Your task to perform on an android device: refresh tabs in the chrome app Image 0: 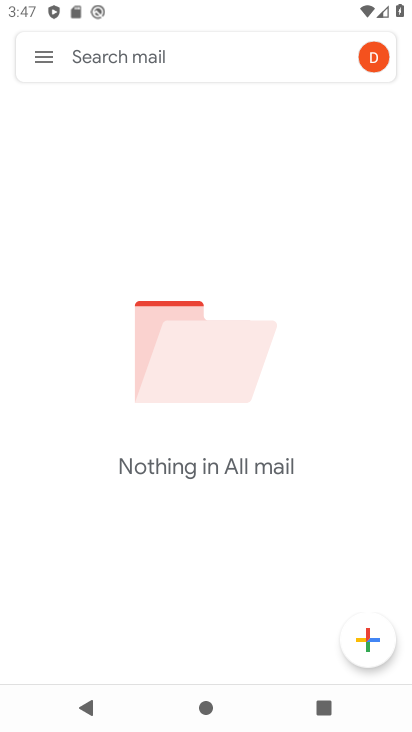
Step 0: press home button
Your task to perform on an android device: refresh tabs in the chrome app Image 1: 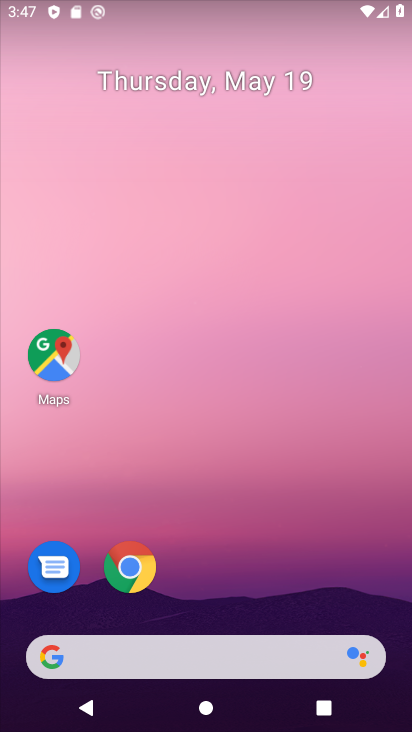
Step 1: drag from (208, 247) to (197, 76)
Your task to perform on an android device: refresh tabs in the chrome app Image 2: 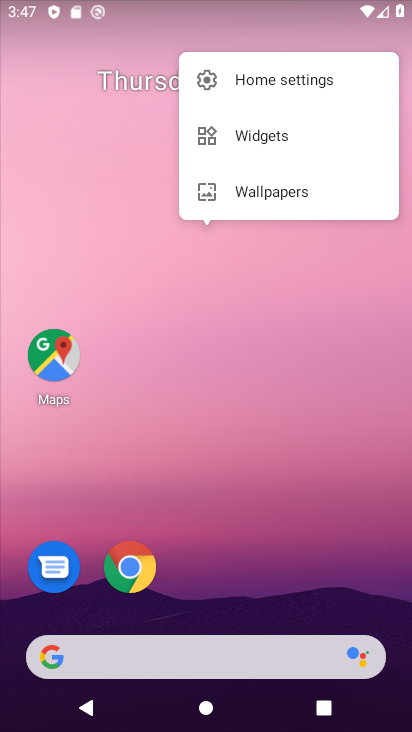
Step 2: click (127, 582)
Your task to perform on an android device: refresh tabs in the chrome app Image 3: 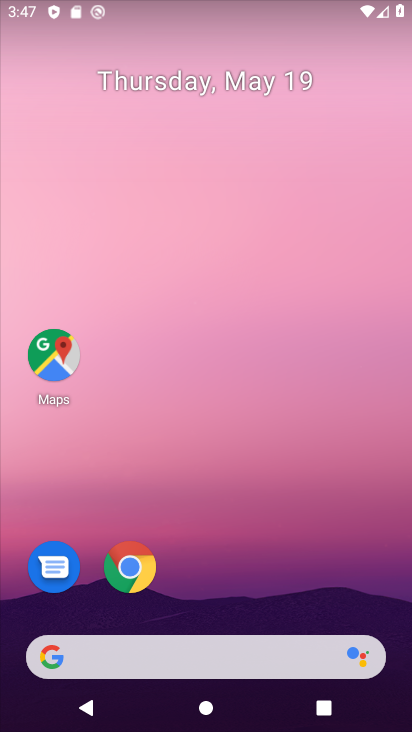
Step 3: click (129, 568)
Your task to perform on an android device: refresh tabs in the chrome app Image 4: 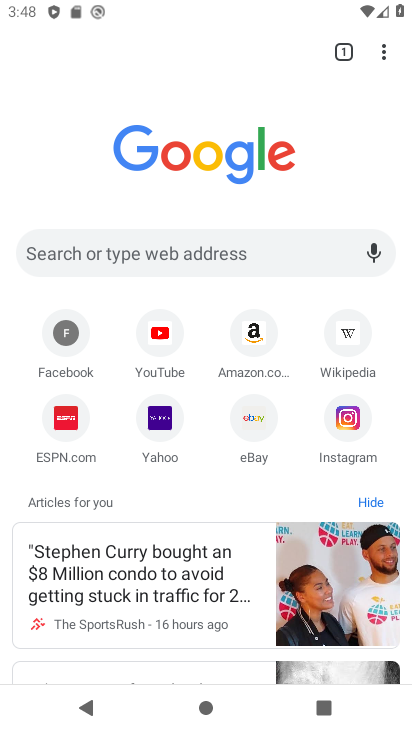
Step 4: click (379, 53)
Your task to perform on an android device: refresh tabs in the chrome app Image 5: 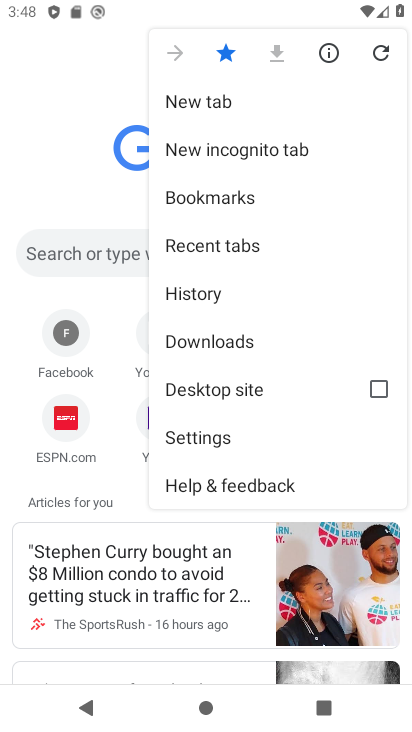
Step 5: click (383, 53)
Your task to perform on an android device: refresh tabs in the chrome app Image 6: 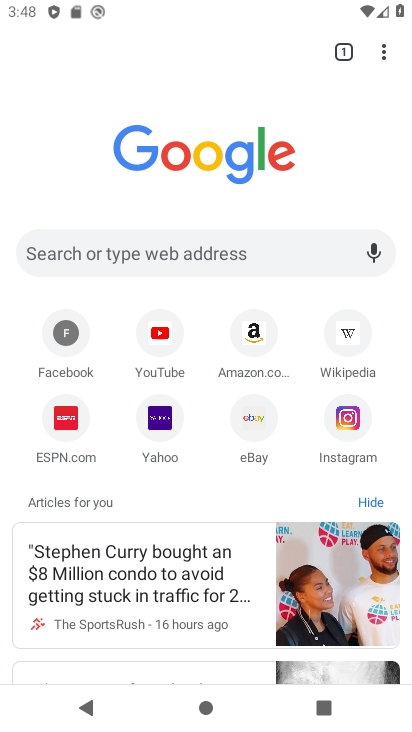
Step 6: task complete